Your task to perform on an android device: manage bookmarks in the chrome app Image 0: 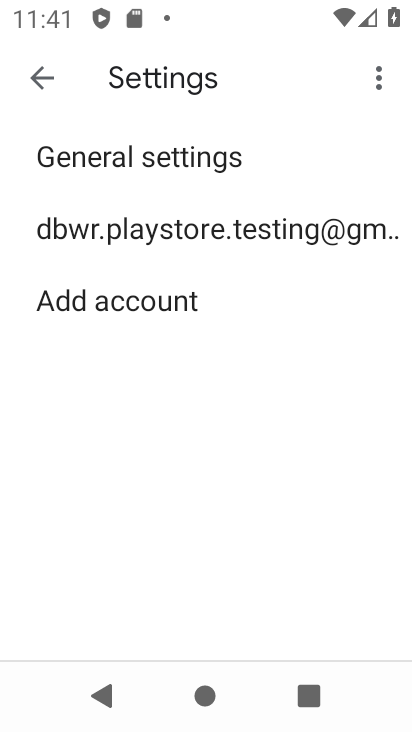
Step 0: press home button
Your task to perform on an android device: manage bookmarks in the chrome app Image 1: 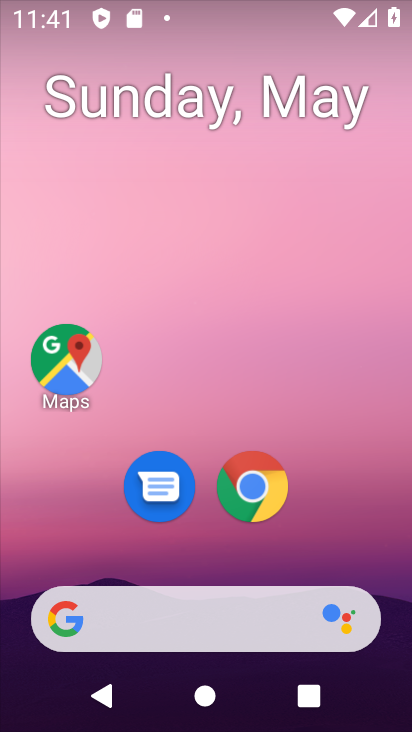
Step 1: click (239, 483)
Your task to perform on an android device: manage bookmarks in the chrome app Image 2: 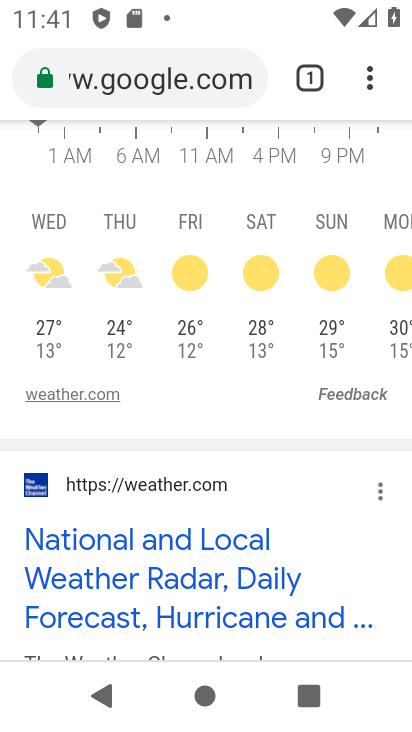
Step 2: task complete